Your task to perform on an android device: Go to privacy settings Image 0: 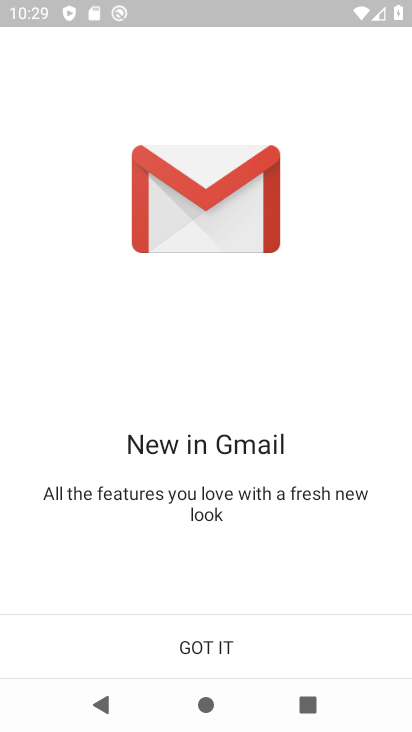
Step 0: press home button
Your task to perform on an android device: Go to privacy settings Image 1: 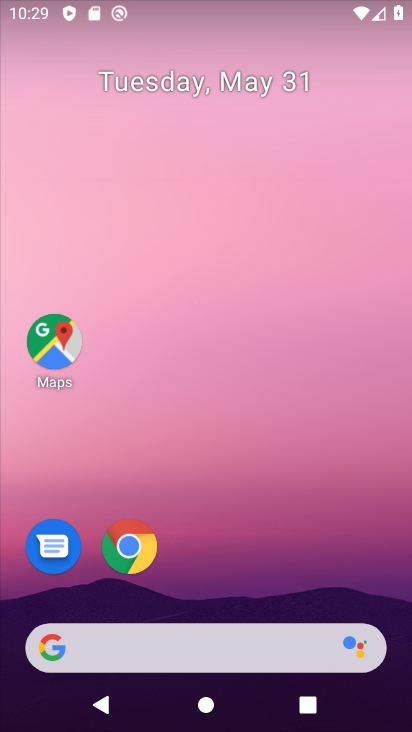
Step 1: drag from (285, 577) to (383, 23)
Your task to perform on an android device: Go to privacy settings Image 2: 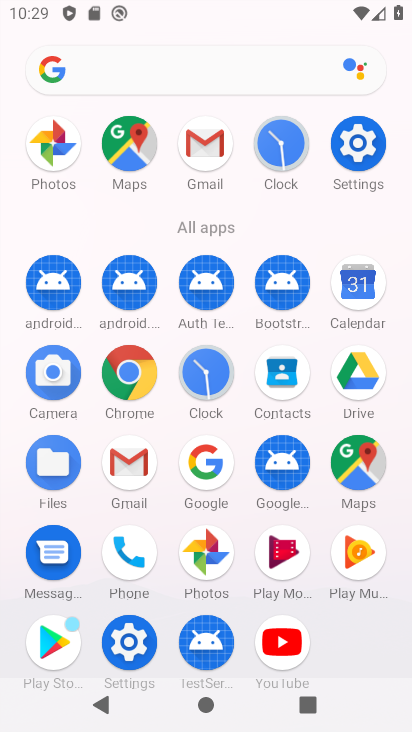
Step 2: click (369, 148)
Your task to perform on an android device: Go to privacy settings Image 3: 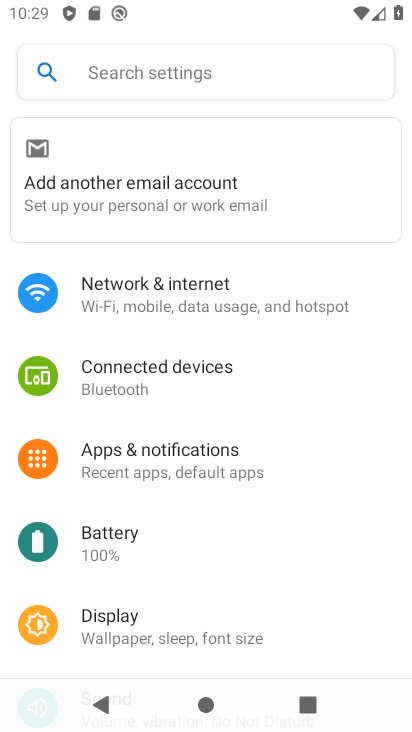
Step 3: drag from (236, 611) to (230, 207)
Your task to perform on an android device: Go to privacy settings Image 4: 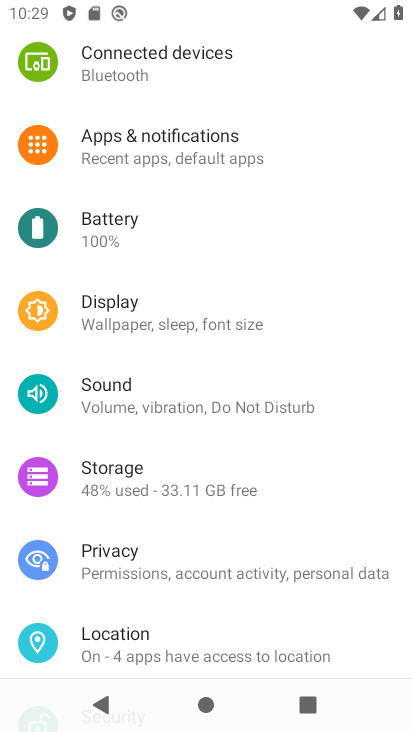
Step 4: click (236, 577)
Your task to perform on an android device: Go to privacy settings Image 5: 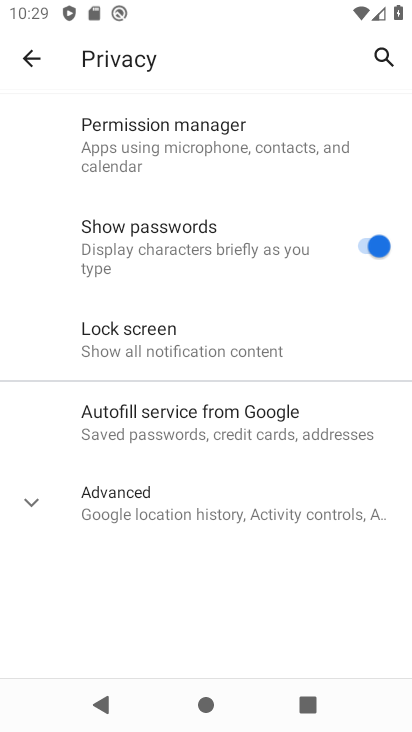
Step 5: task complete